Your task to perform on an android device: Go to eBay Image 0: 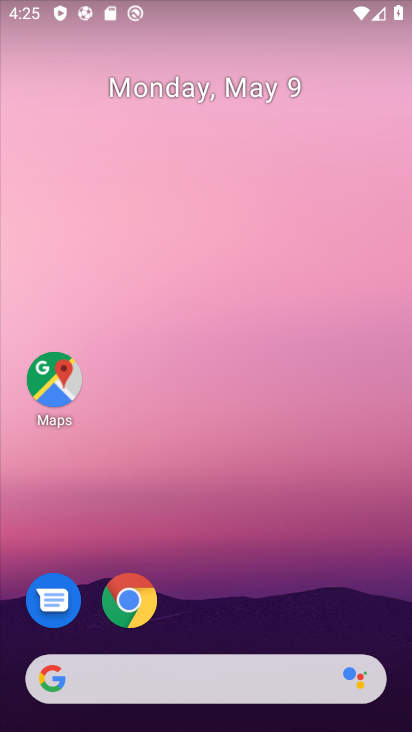
Step 0: click (272, 688)
Your task to perform on an android device: Go to eBay Image 1: 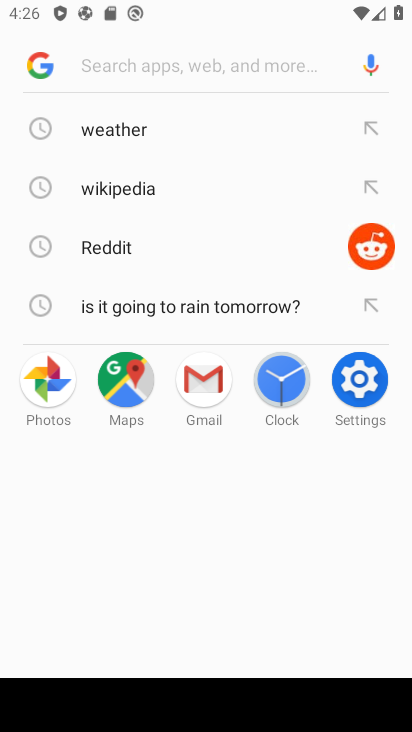
Step 1: type "ebay"
Your task to perform on an android device: Go to eBay Image 2: 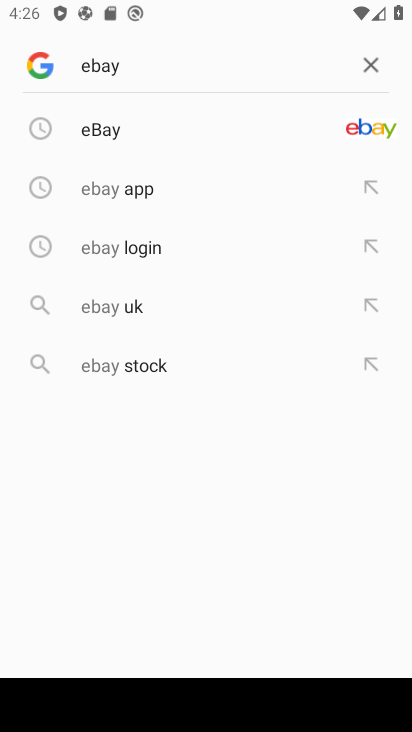
Step 2: click (114, 133)
Your task to perform on an android device: Go to eBay Image 3: 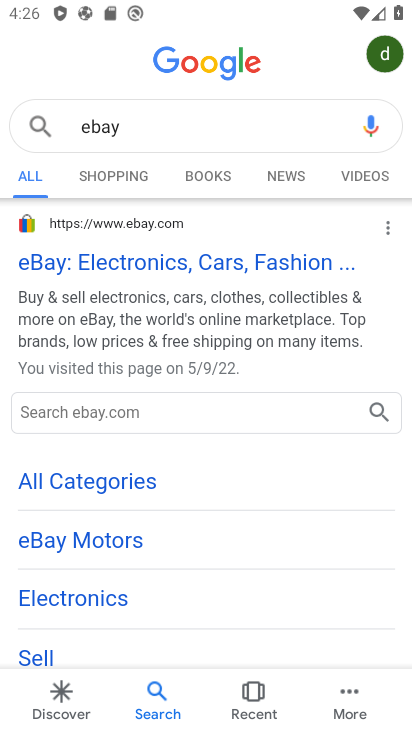
Step 3: click (90, 257)
Your task to perform on an android device: Go to eBay Image 4: 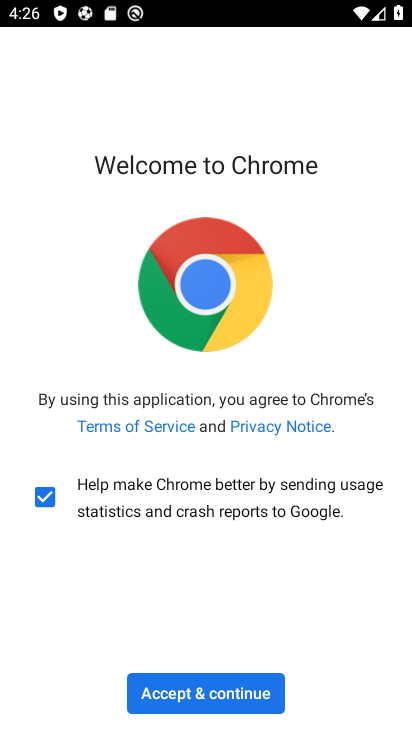
Step 4: click (255, 692)
Your task to perform on an android device: Go to eBay Image 5: 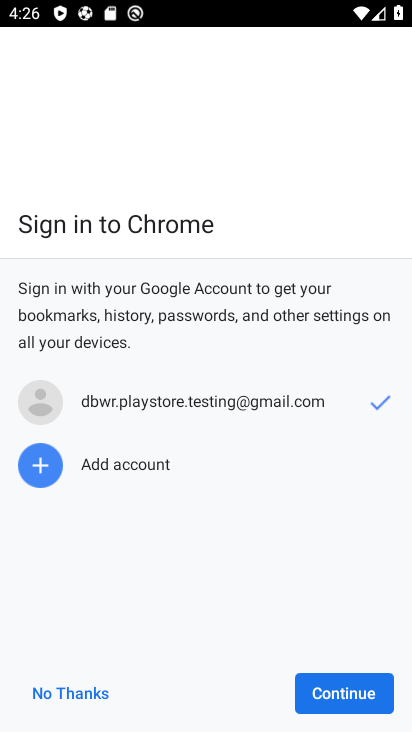
Step 5: click (324, 683)
Your task to perform on an android device: Go to eBay Image 6: 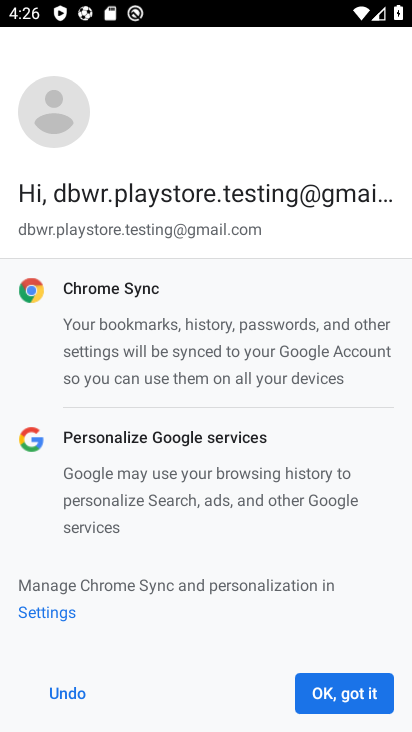
Step 6: click (329, 688)
Your task to perform on an android device: Go to eBay Image 7: 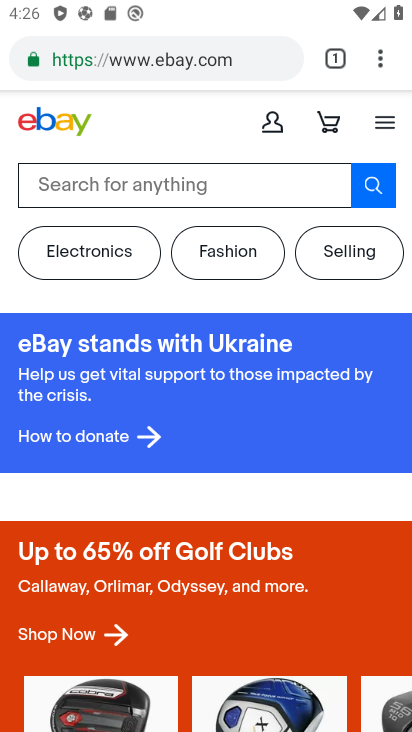
Step 7: task complete